Your task to perform on an android device: Do I have any events today? Image 0: 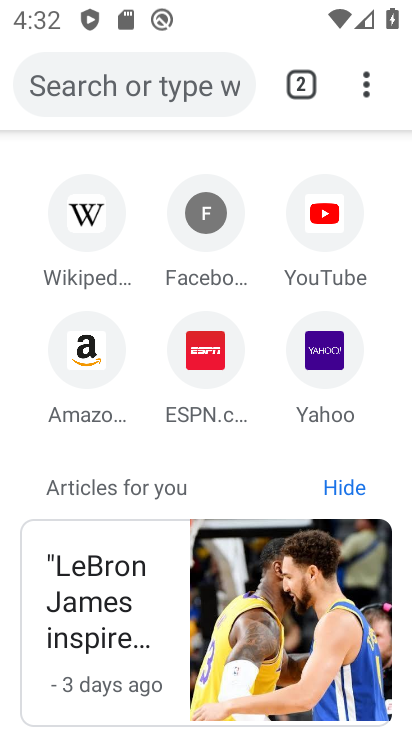
Step 0: press back button
Your task to perform on an android device: Do I have any events today? Image 1: 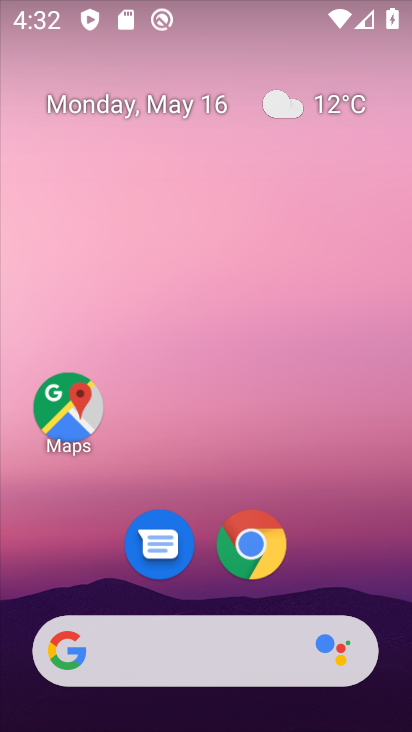
Step 1: drag from (314, 570) to (241, 157)
Your task to perform on an android device: Do I have any events today? Image 2: 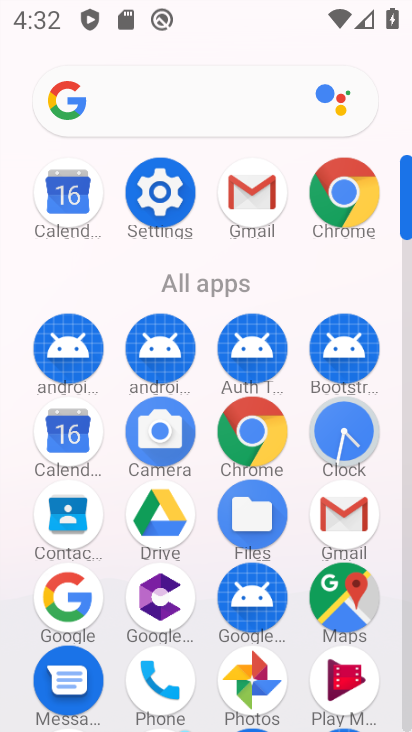
Step 2: click (72, 195)
Your task to perform on an android device: Do I have any events today? Image 3: 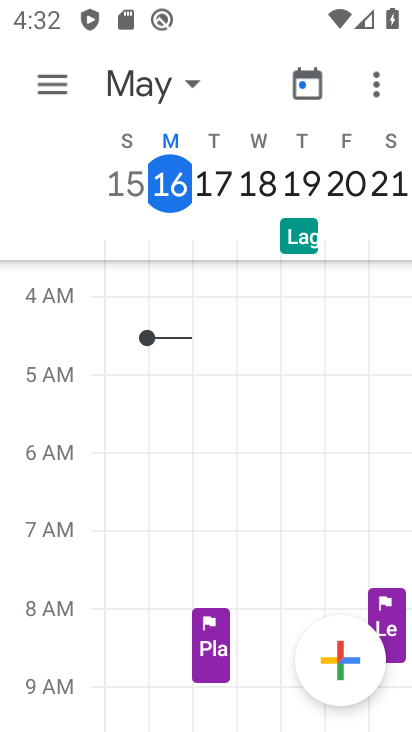
Step 3: click (308, 87)
Your task to perform on an android device: Do I have any events today? Image 4: 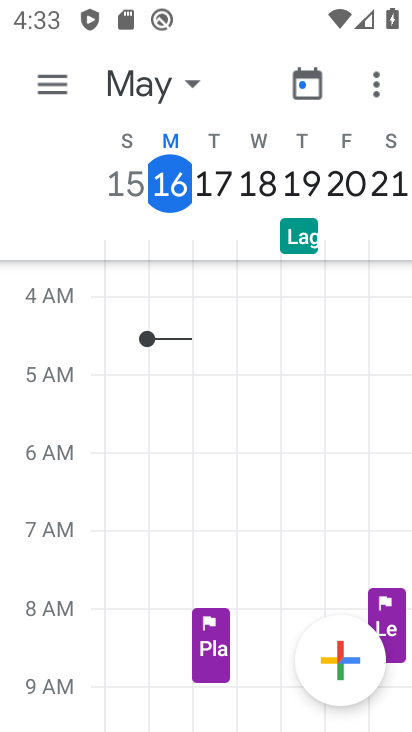
Step 4: click (65, 82)
Your task to perform on an android device: Do I have any events today? Image 5: 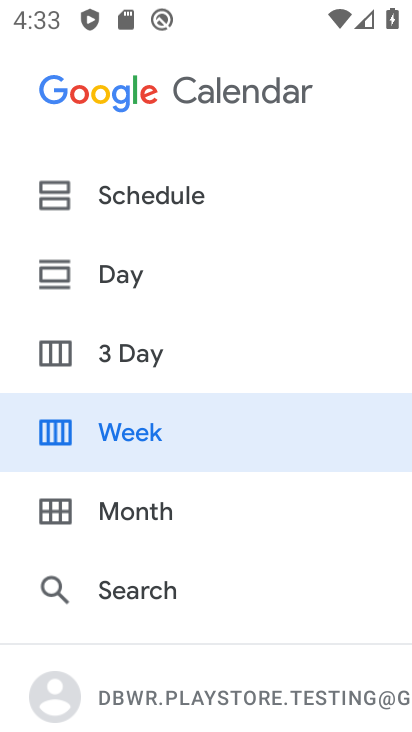
Step 5: click (83, 187)
Your task to perform on an android device: Do I have any events today? Image 6: 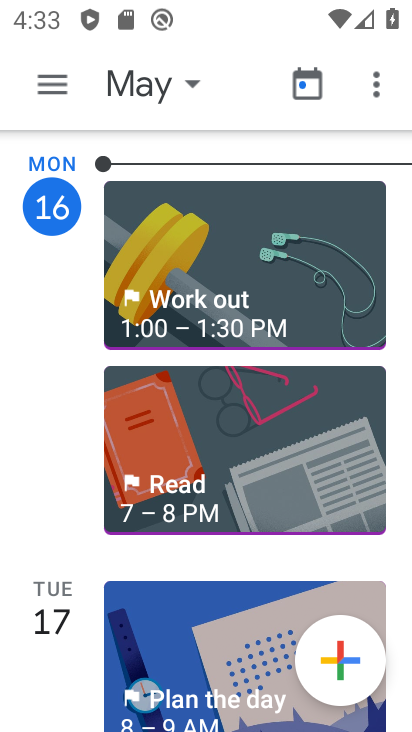
Step 6: click (229, 288)
Your task to perform on an android device: Do I have any events today? Image 7: 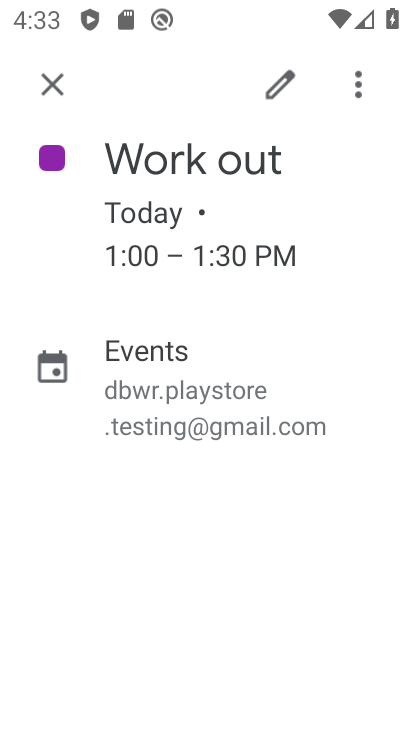
Step 7: task complete